Your task to perform on an android device: add a contact in the contacts app Image 0: 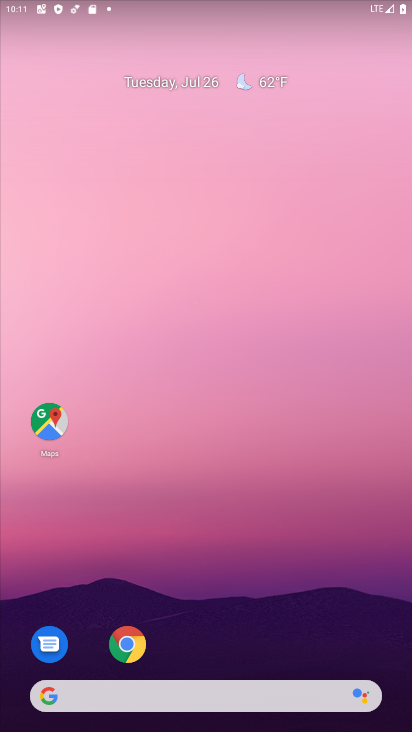
Step 0: drag from (255, 627) to (230, 15)
Your task to perform on an android device: add a contact in the contacts app Image 1: 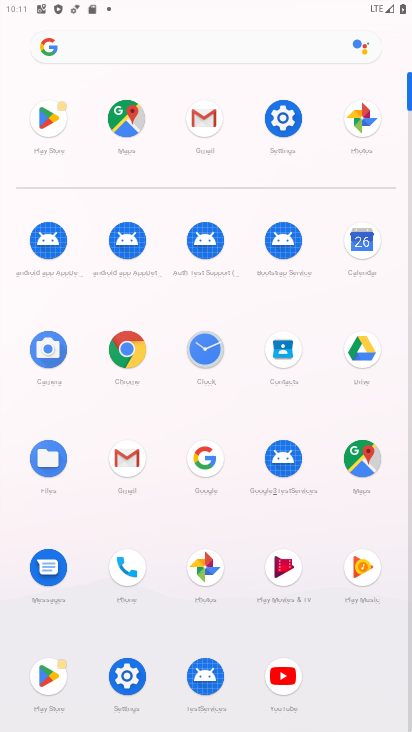
Step 1: click (277, 348)
Your task to perform on an android device: add a contact in the contacts app Image 2: 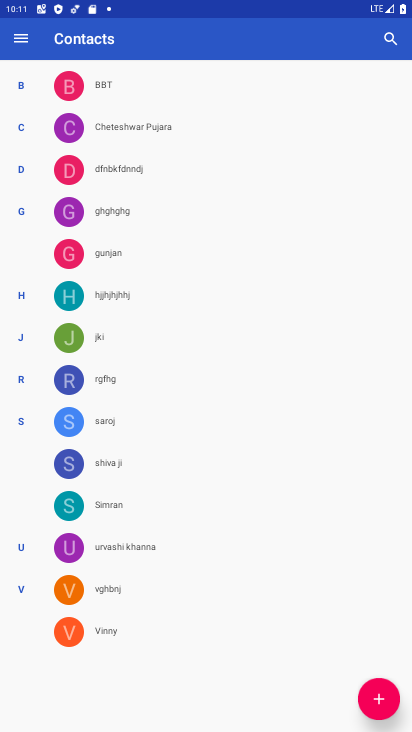
Step 2: click (375, 700)
Your task to perform on an android device: add a contact in the contacts app Image 3: 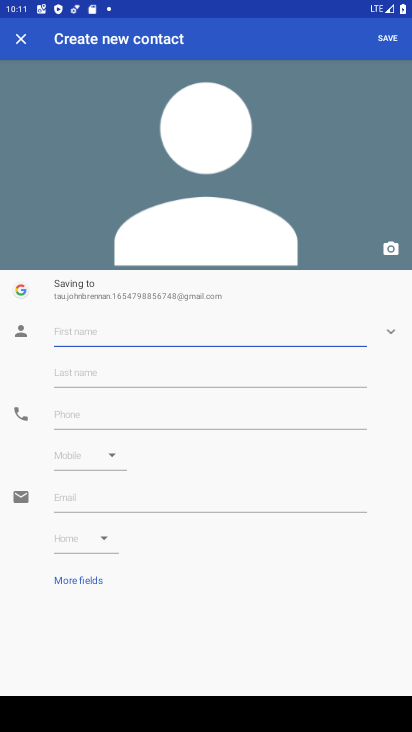
Step 3: click (125, 344)
Your task to perform on an android device: add a contact in the contacts app Image 4: 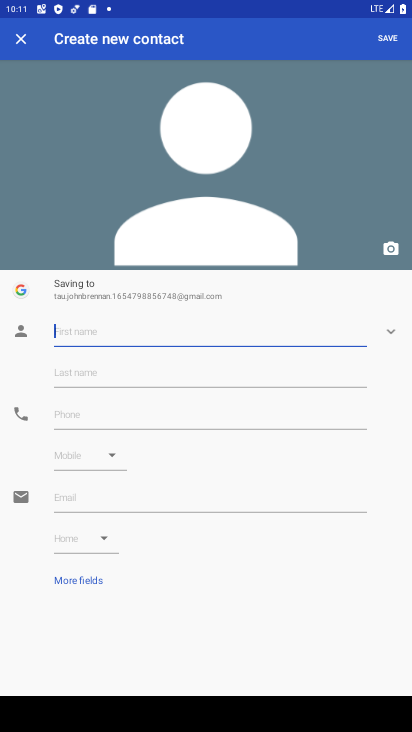
Step 4: type "iuygy"
Your task to perform on an android device: add a contact in the contacts app Image 5: 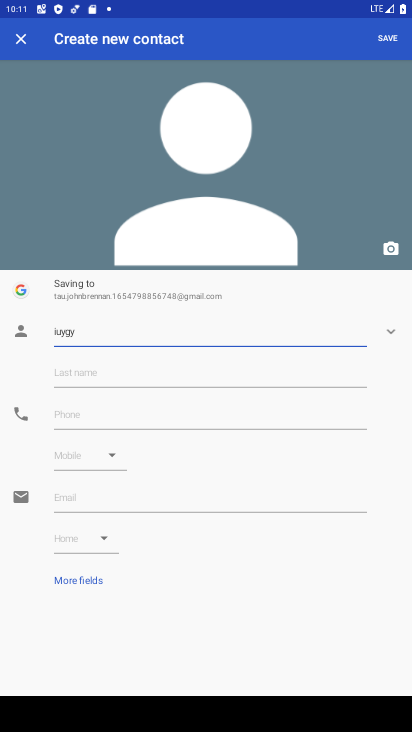
Step 5: click (81, 407)
Your task to perform on an android device: add a contact in the contacts app Image 6: 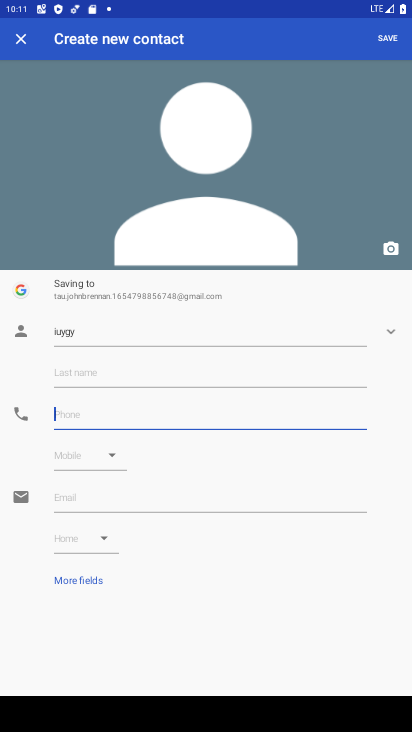
Step 6: type "456788766"
Your task to perform on an android device: add a contact in the contacts app Image 7: 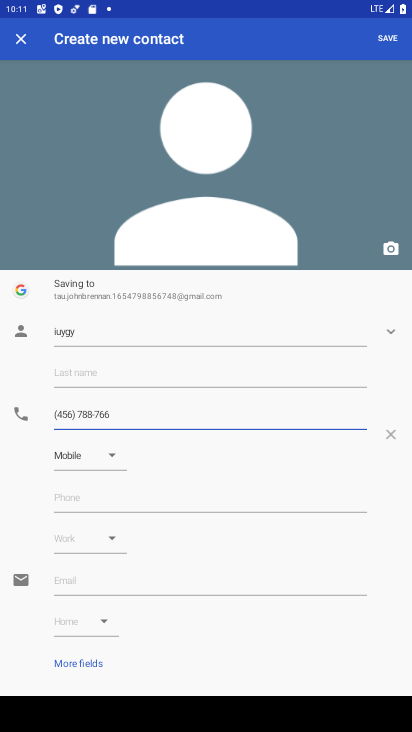
Step 7: click (395, 47)
Your task to perform on an android device: add a contact in the contacts app Image 8: 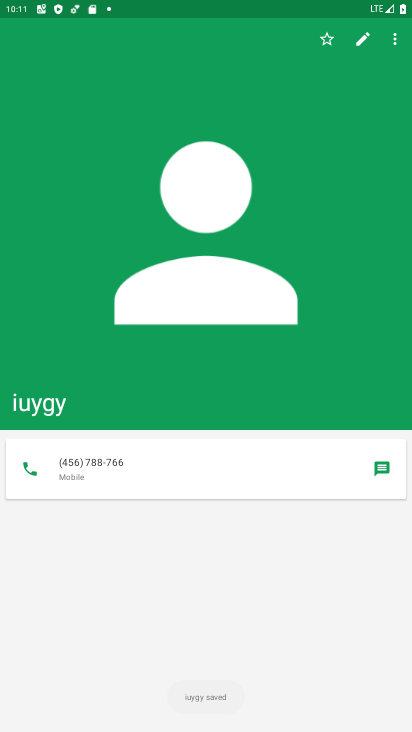
Step 8: task complete